Your task to perform on an android device: open app "Grab" (install if not already installed) Image 0: 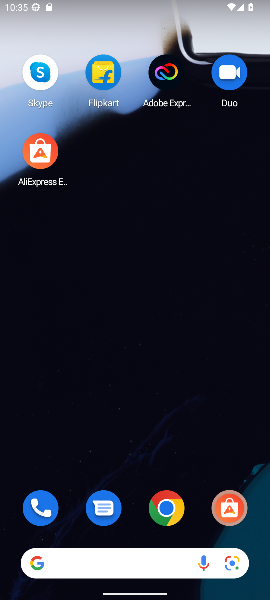
Step 0: drag from (138, 551) to (135, 203)
Your task to perform on an android device: open app "Grab" (install if not already installed) Image 1: 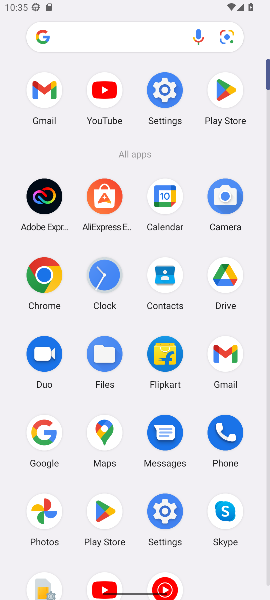
Step 1: click (106, 512)
Your task to perform on an android device: open app "Grab" (install if not already installed) Image 2: 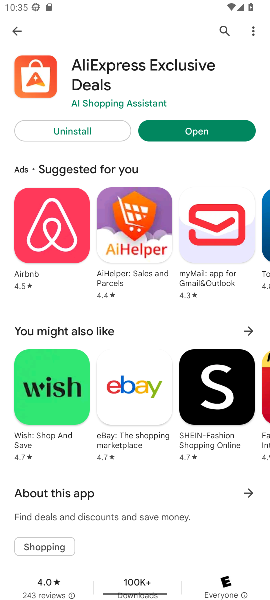
Step 2: click (12, 29)
Your task to perform on an android device: open app "Grab" (install if not already installed) Image 3: 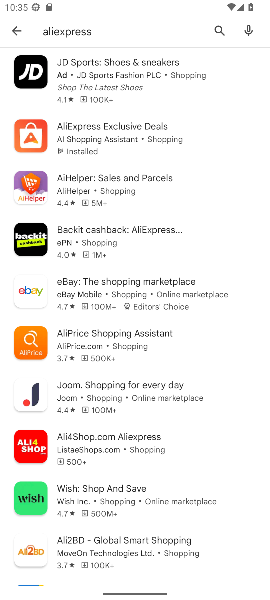
Step 3: click (216, 21)
Your task to perform on an android device: open app "Grab" (install if not already installed) Image 4: 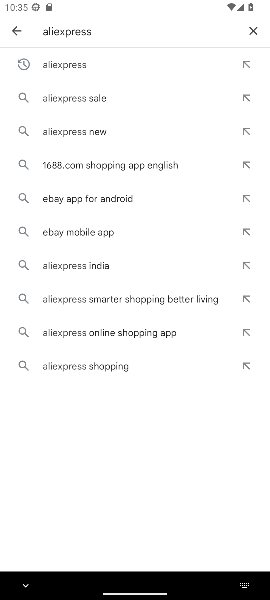
Step 4: click (248, 31)
Your task to perform on an android device: open app "Grab" (install if not already installed) Image 5: 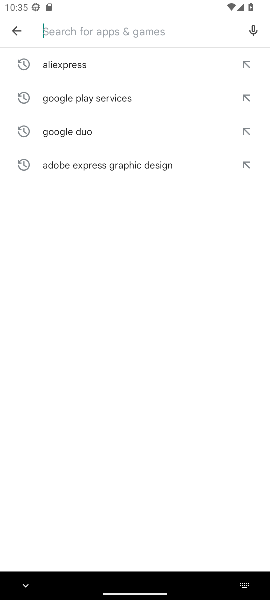
Step 5: type "Grab"
Your task to perform on an android device: open app "Grab" (install if not already installed) Image 6: 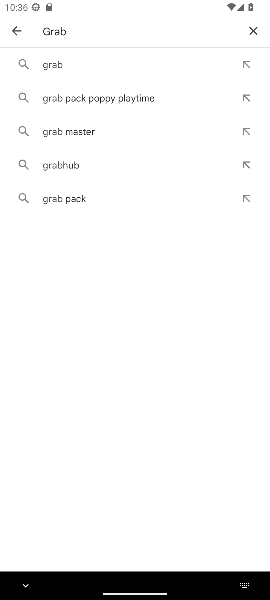
Step 6: click (50, 66)
Your task to perform on an android device: open app "Grab" (install if not already installed) Image 7: 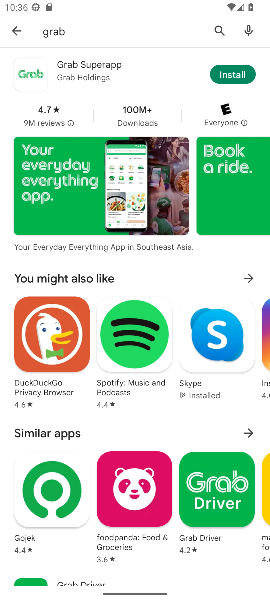
Step 7: click (221, 71)
Your task to perform on an android device: open app "Grab" (install if not already installed) Image 8: 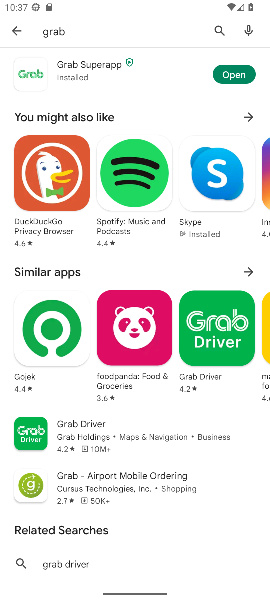
Step 8: click (245, 73)
Your task to perform on an android device: open app "Grab" (install if not already installed) Image 9: 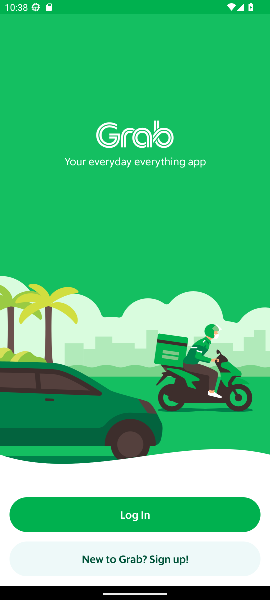
Step 9: task complete